Your task to perform on an android device: Play the last video I watched on Youtube Image 0: 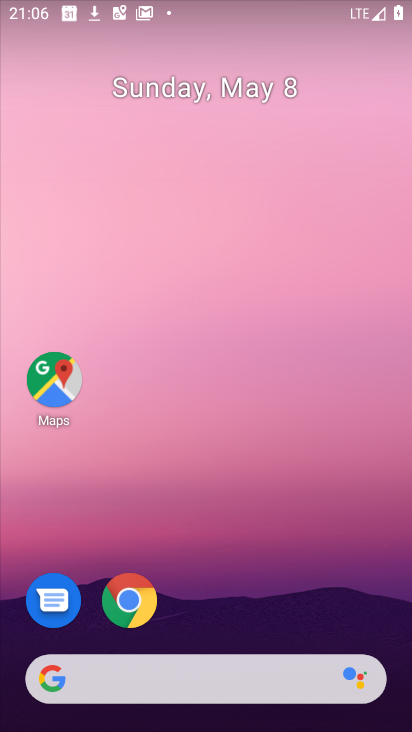
Step 0: drag from (233, 704) to (229, 158)
Your task to perform on an android device: Play the last video I watched on Youtube Image 1: 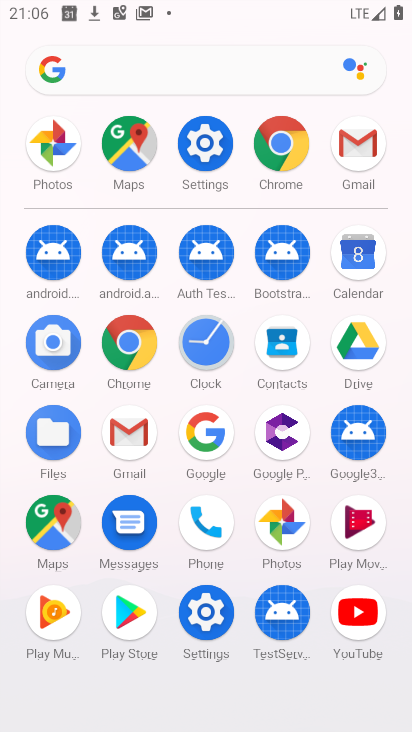
Step 1: click (352, 608)
Your task to perform on an android device: Play the last video I watched on Youtube Image 2: 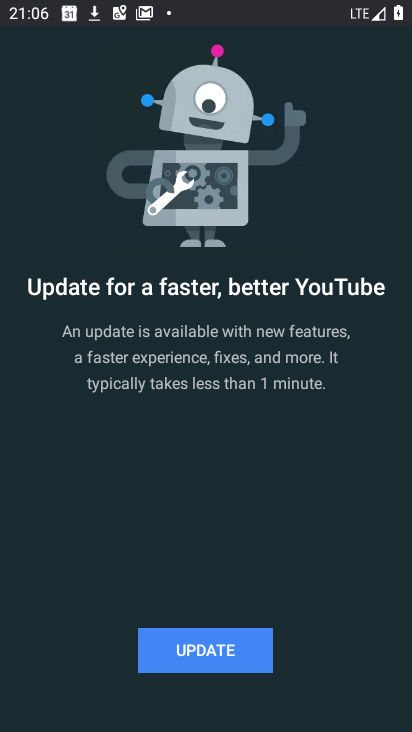
Step 2: click (243, 655)
Your task to perform on an android device: Play the last video I watched on Youtube Image 3: 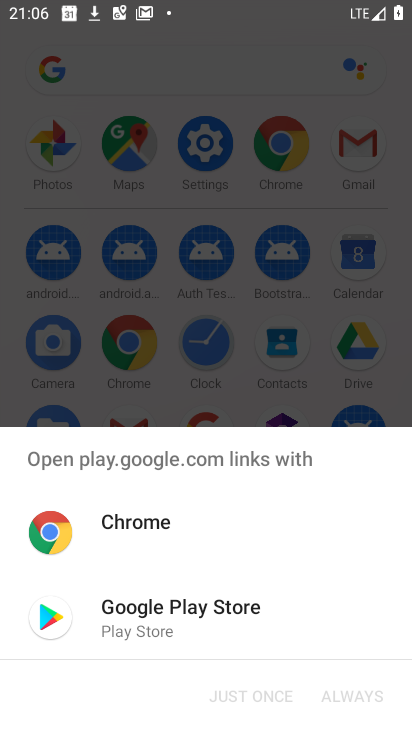
Step 3: click (192, 616)
Your task to perform on an android device: Play the last video I watched on Youtube Image 4: 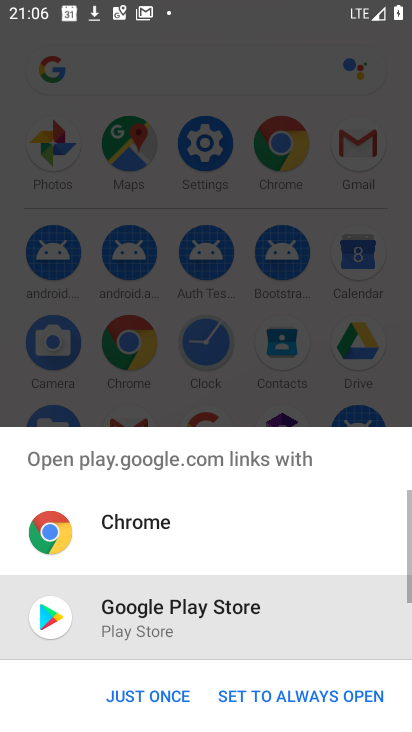
Step 4: drag from (231, 688) to (119, 714)
Your task to perform on an android device: Play the last video I watched on Youtube Image 5: 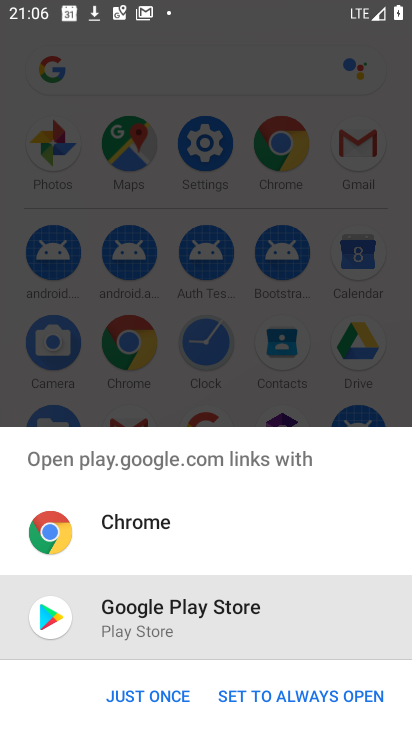
Step 5: click (131, 703)
Your task to perform on an android device: Play the last video I watched on Youtube Image 6: 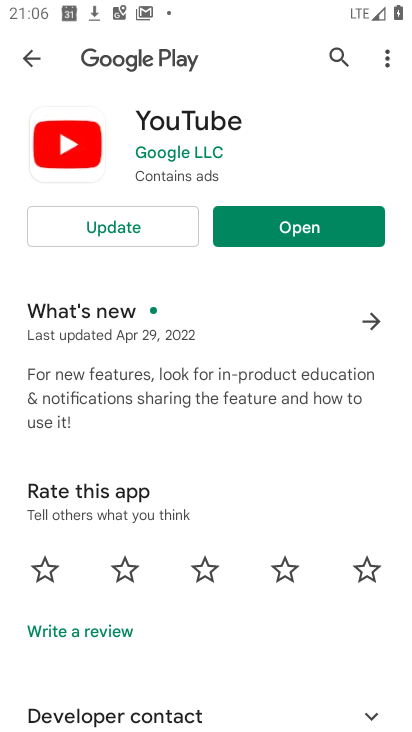
Step 6: click (124, 219)
Your task to perform on an android device: Play the last video I watched on Youtube Image 7: 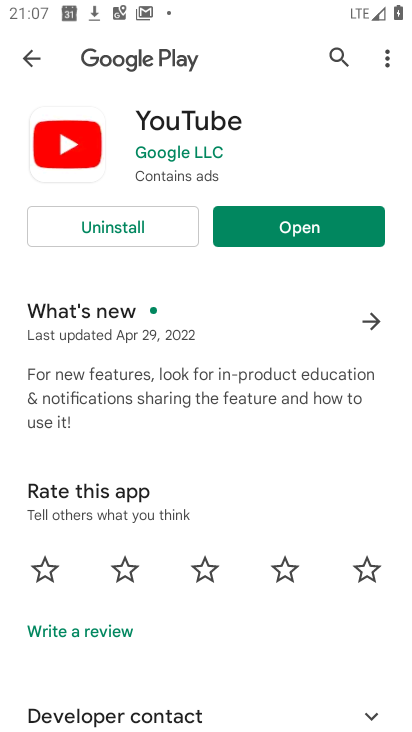
Step 7: click (299, 227)
Your task to perform on an android device: Play the last video I watched on Youtube Image 8: 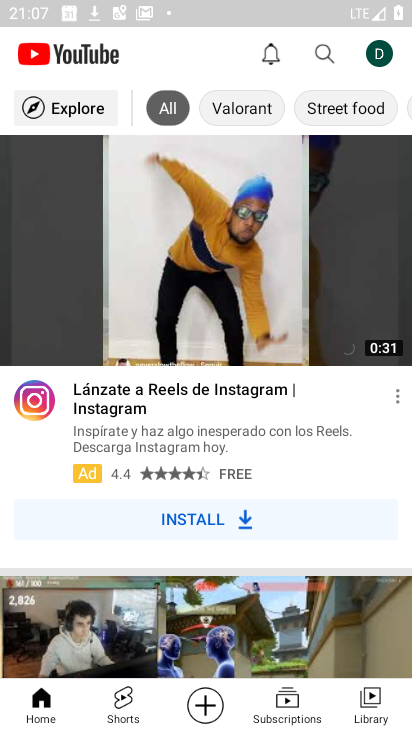
Step 8: click (380, 716)
Your task to perform on an android device: Play the last video I watched on Youtube Image 9: 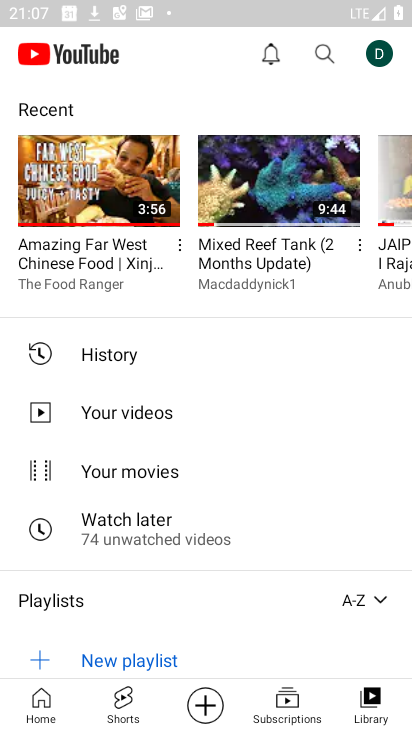
Step 9: click (91, 191)
Your task to perform on an android device: Play the last video I watched on Youtube Image 10: 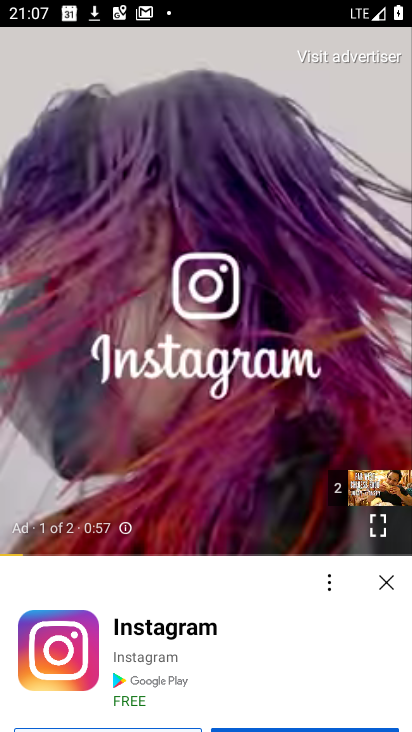
Step 10: click (391, 578)
Your task to perform on an android device: Play the last video I watched on Youtube Image 11: 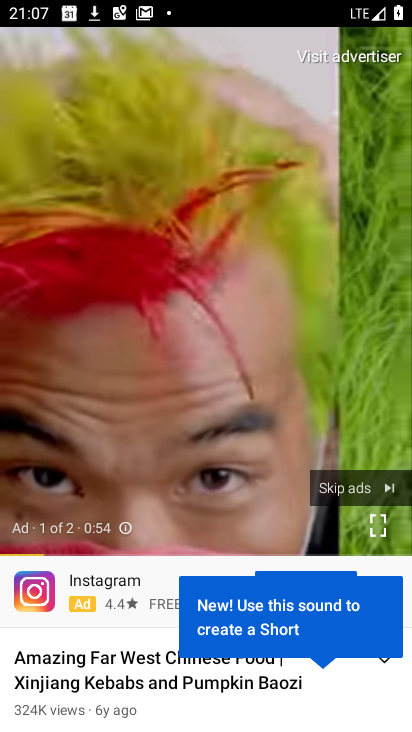
Step 11: click (354, 483)
Your task to perform on an android device: Play the last video I watched on Youtube Image 12: 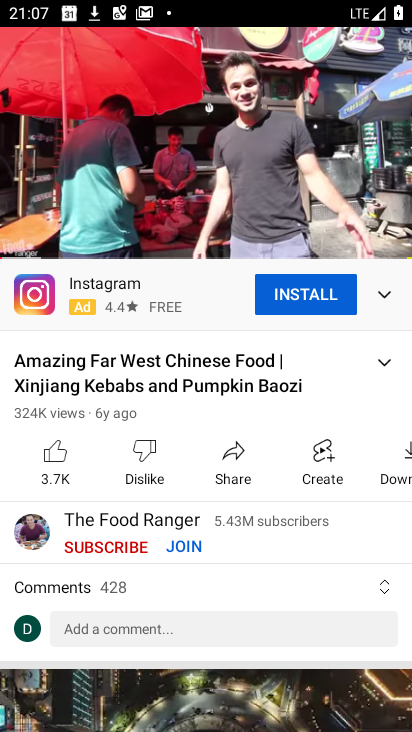
Step 12: click (197, 277)
Your task to perform on an android device: Play the last video I watched on Youtube Image 13: 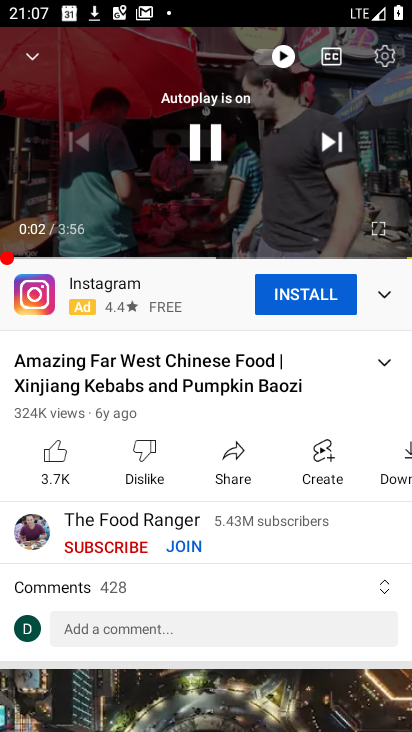
Step 13: click (197, 157)
Your task to perform on an android device: Play the last video I watched on Youtube Image 14: 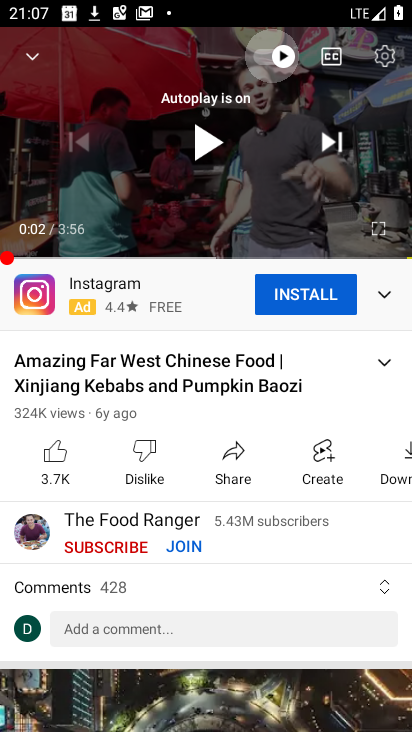
Step 14: task complete